Your task to perform on an android device: Toggle the flashlight Image 0: 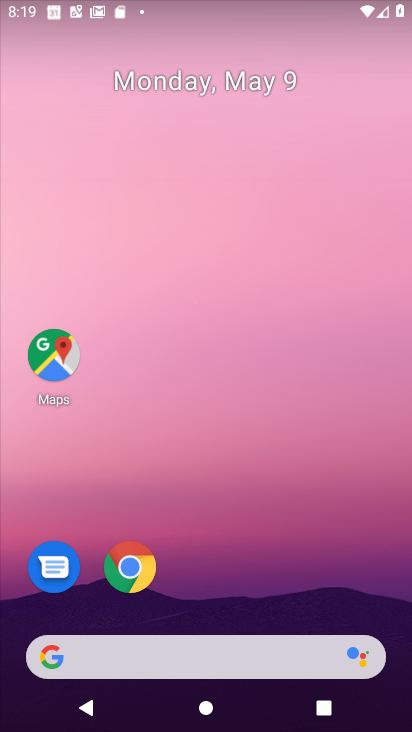
Step 0: drag from (218, 621) to (299, 138)
Your task to perform on an android device: Toggle the flashlight Image 1: 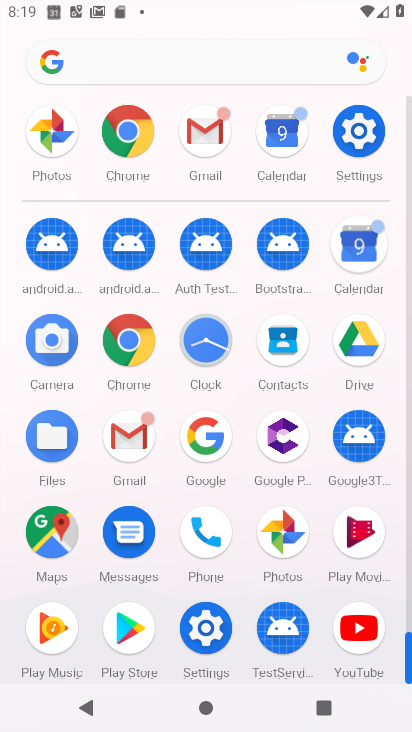
Step 1: click (353, 130)
Your task to perform on an android device: Toggle the flashlight Image 2: 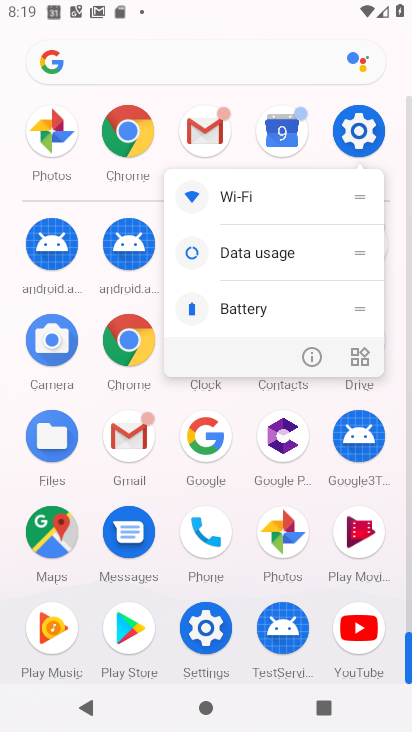
Step 2: click (315, 352)
Your task to perform on an android device: Toggle the flashlight Image 3: 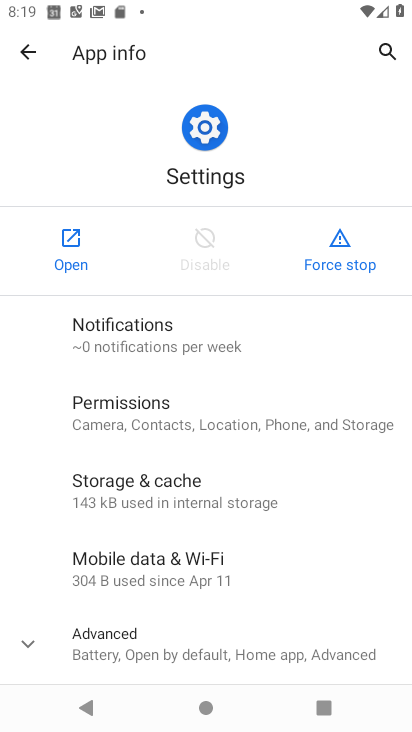
Step 3: click (46, 238)
Your task to perform on an android device: Toggle the flashlight Image 4: 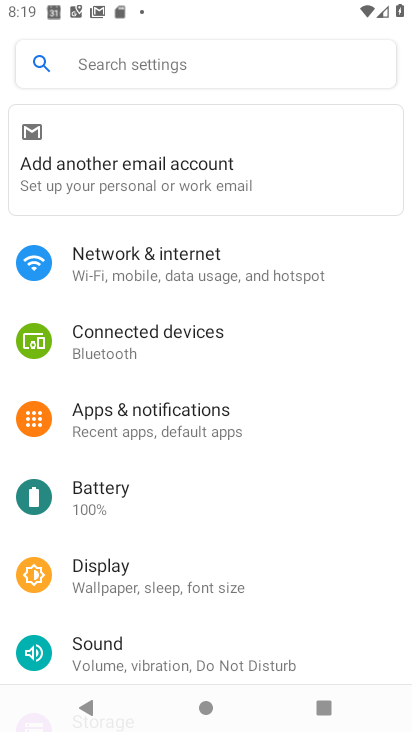
Step 4: click (203, 49)
Your task to perform on an android device: Toggle the flashlight Image 5: 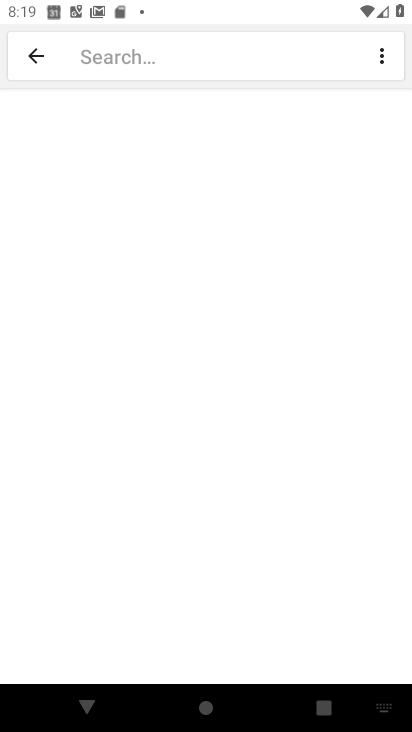
Step 5: type "flashlight"
Your task to perform on an android device: Toggle the flashlight Image 6: 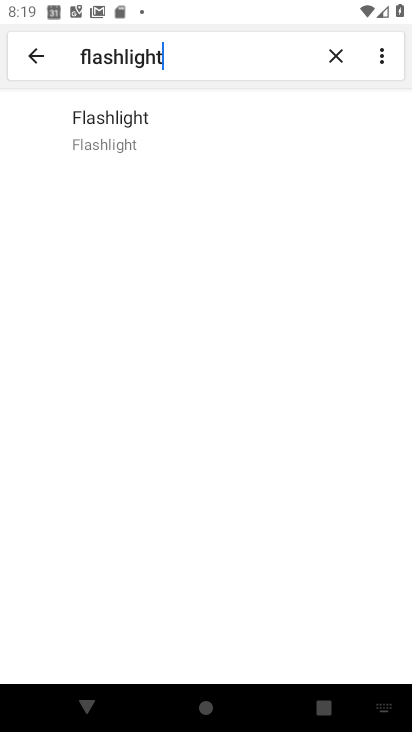
Step 6: click (138, 125)
Your task to perform on an android device: Toggle the flashlight Image 7: 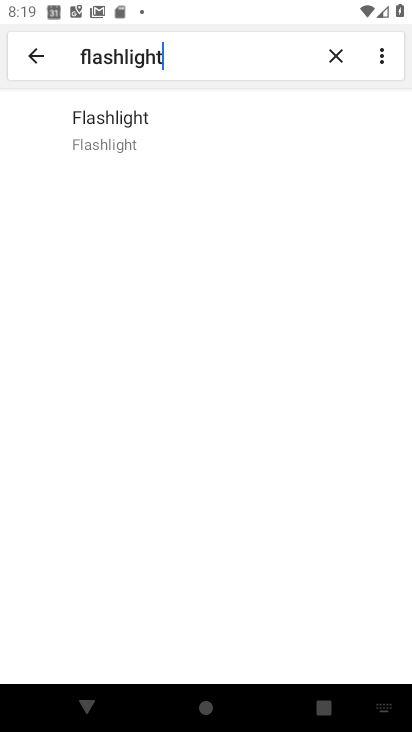
Step 7: task complete